Your task to perform on an android device: Open the stopwatch Image 0: 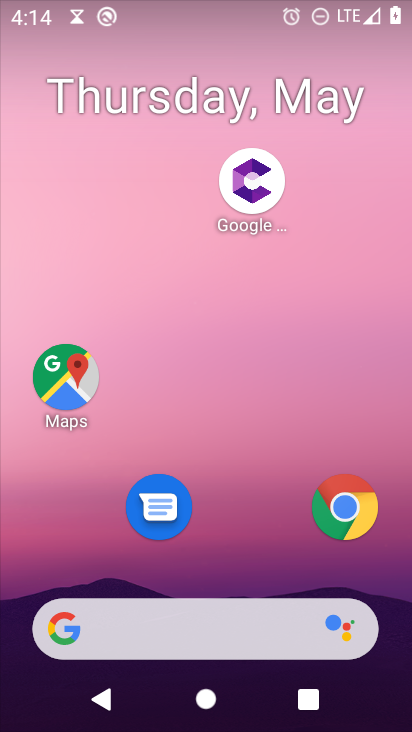
Step 0: press home button
Your task to perform on an android device: Open the stopwatch Image 1: 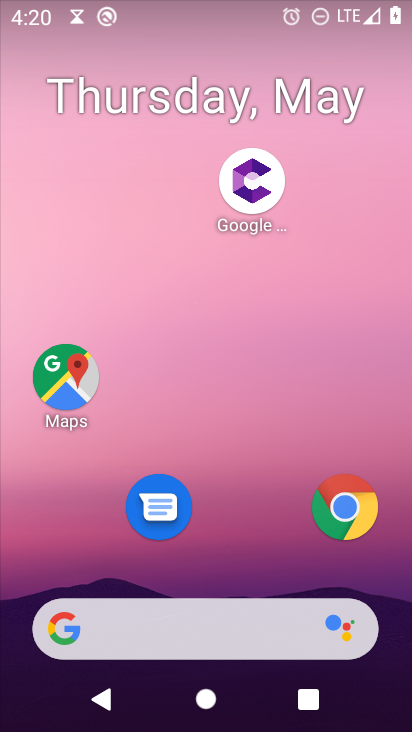
Step 1: drag from (270, 566) to (230, 239)
Your task to perform on an android device: Open the stopwatch Image 2: 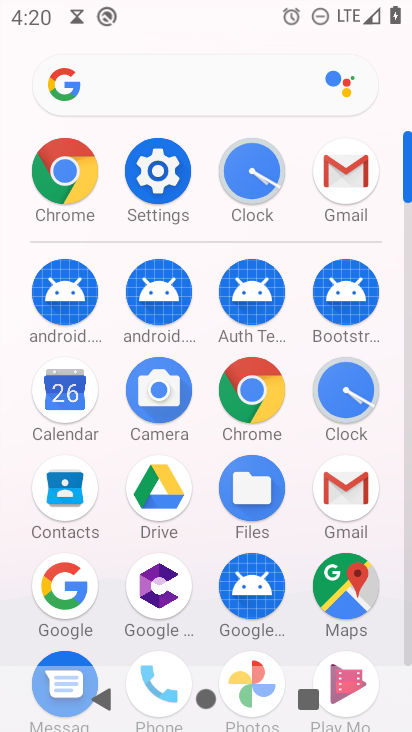
Step 2: click (337, 391)
Your task to perform on an android device: Open the stopwatch Image 3: 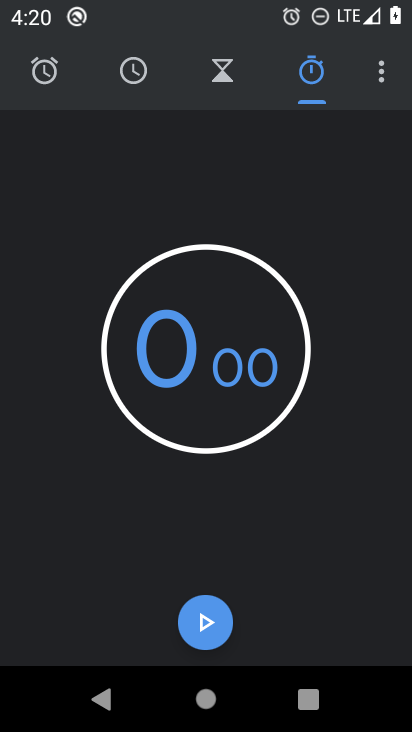
Step 3: click (305, 69)
Your task to perform on an android device: Open the stopwatch Image 4: 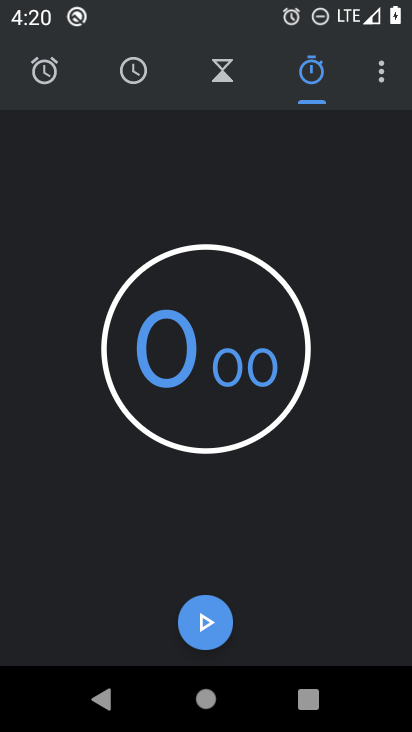
Step 4: click (308, 68)
Your task to perform on an android device: Open the stopwatch Image 5: 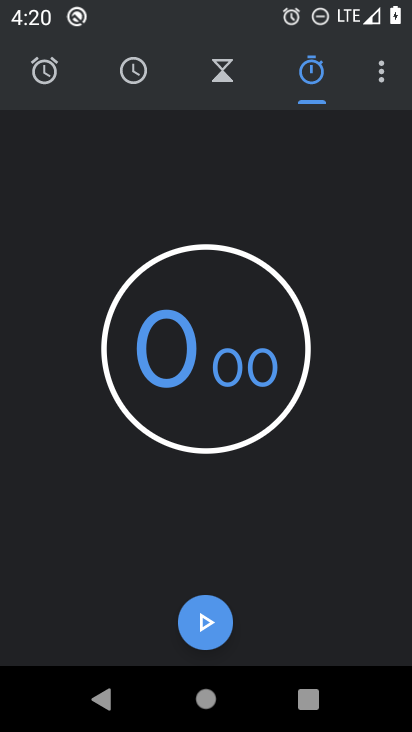
Step 5: click (199, 620)
Your task to perform on an android device: Open the stopwatch Image 6: 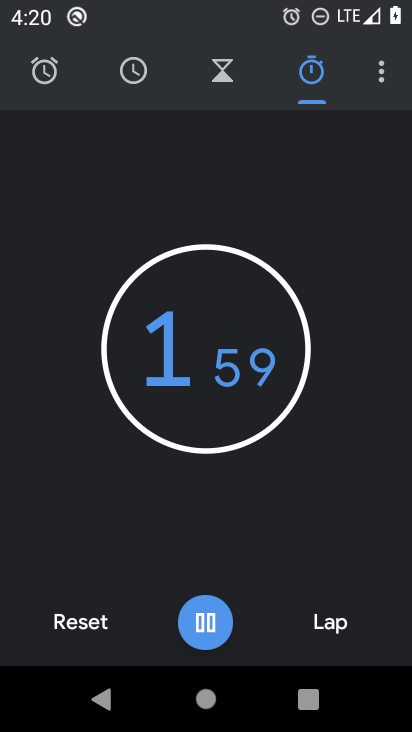
Step 6: click (211, 625)
Your task to perform on an android device: Open the stopwatch Image 7: 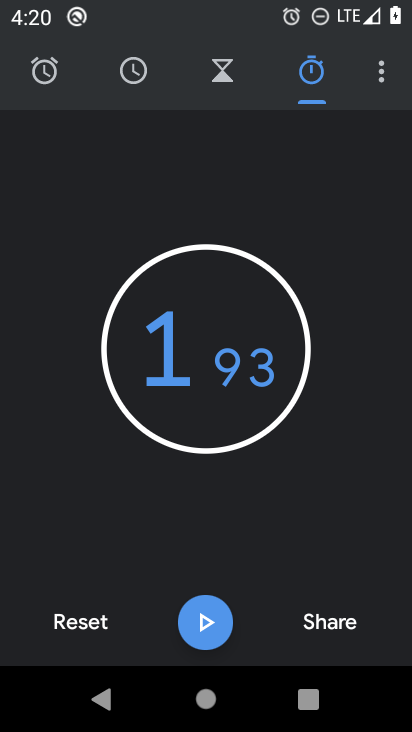
Step 7: task complete